Your task to perform on an android device: Go to internet settings Image 0: 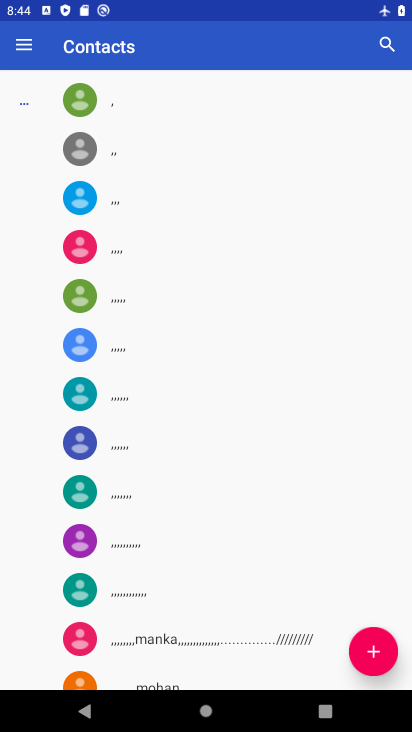
Step 0: press home button
Your task to perform on an android device: Go to internet settings Image 1: 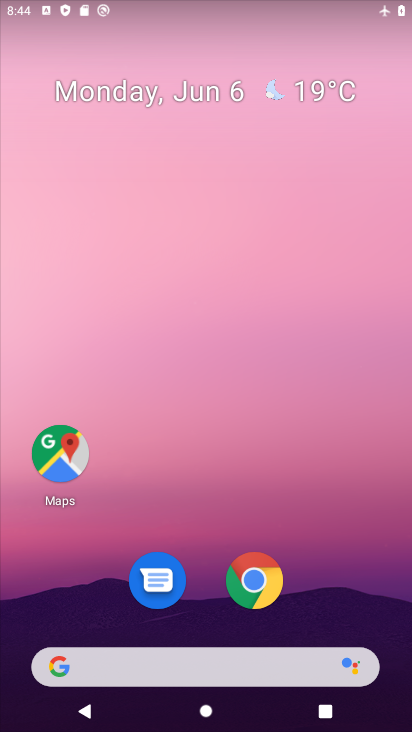
Step 1: drag from (217, 668) to (198, 55)
Your task to perform on an android device: Go to internet settings Image 2: 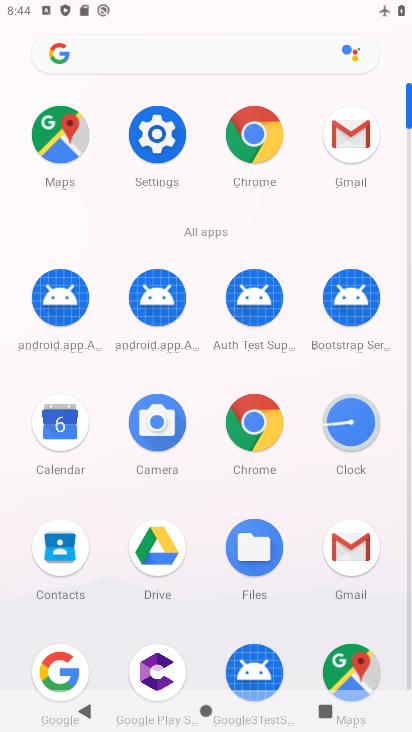
Step 2: click (165, 142)
Your task to perform on an android device: Go to internet settings Image 3: 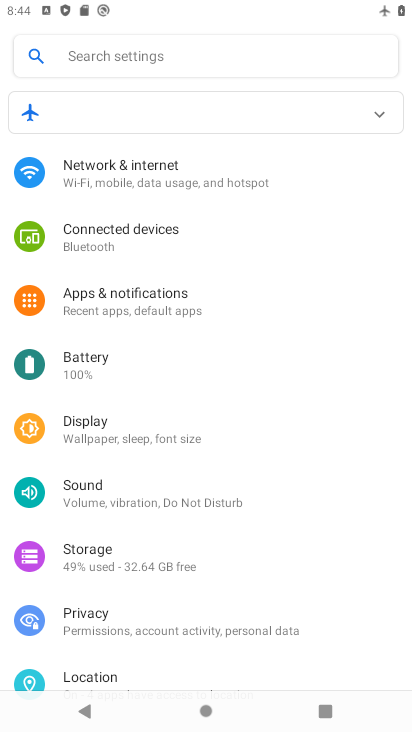
Step 3: click (153, 172)
Your task to perform on an android device: Go to internet settings Image 4: 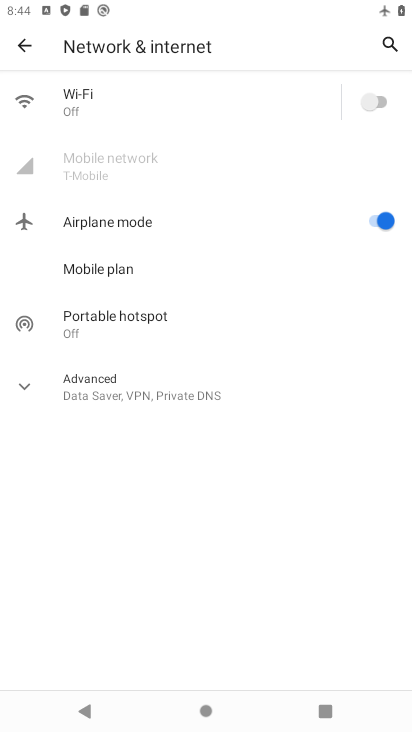
Step 4: task complete